Your task to perform on an android device: add a label to a message in the gmail app Image 0: 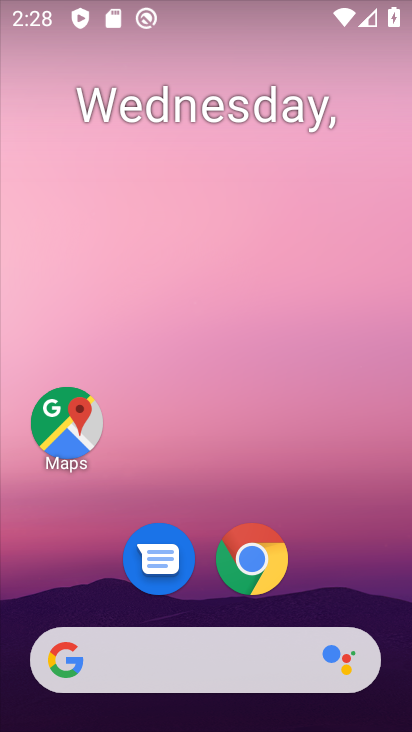
Step 0: drag from (203, 724) to (205, 154)
Your task to perform on an android device: add a label to a message in the gmail app Image 1: 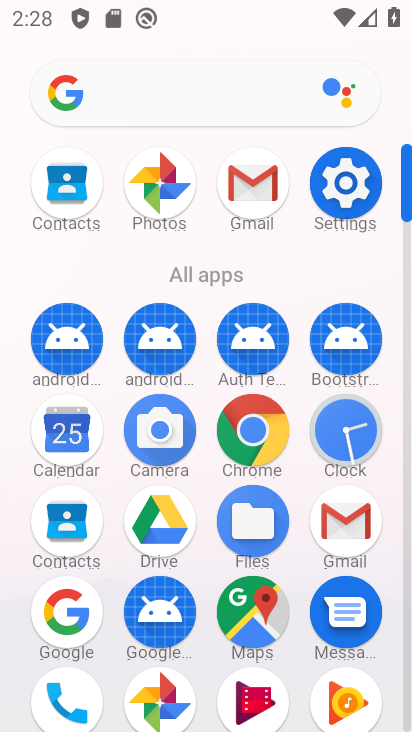
Step 1: click (355, 442)
Your task to perform on an android device: add a label to a message in the gmail app Image 2: 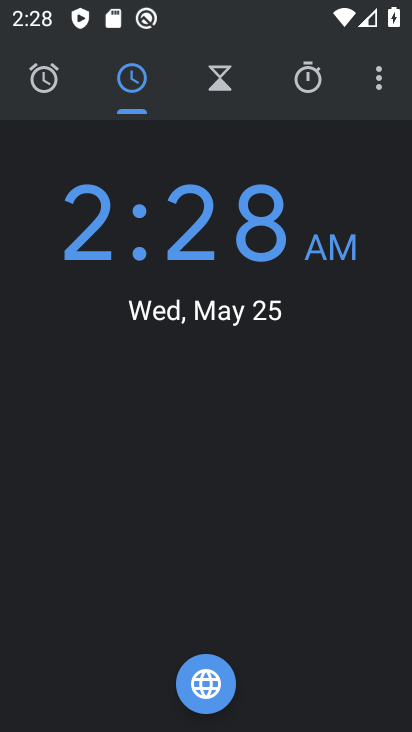
Step 2: press home button
Your task to perform on an android device: add a label to a message in the gmail app Image 3: 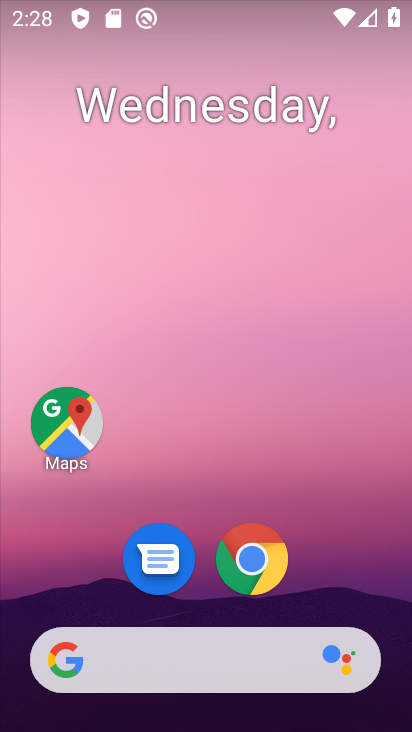
Step 3: drag from (212, 720) to (208, 147)
Your task to perform on an android device: add a label to a message in the gmail app Image 4: 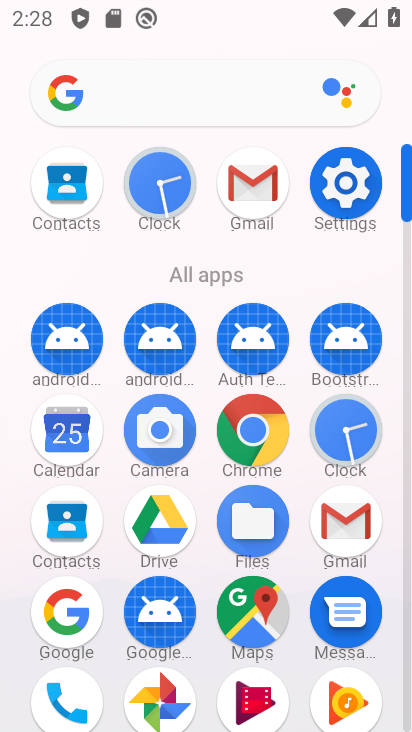
Step 4: click (352, 513)
Your task to perform on an android device: add a label to a message in the gmail app Image 5: 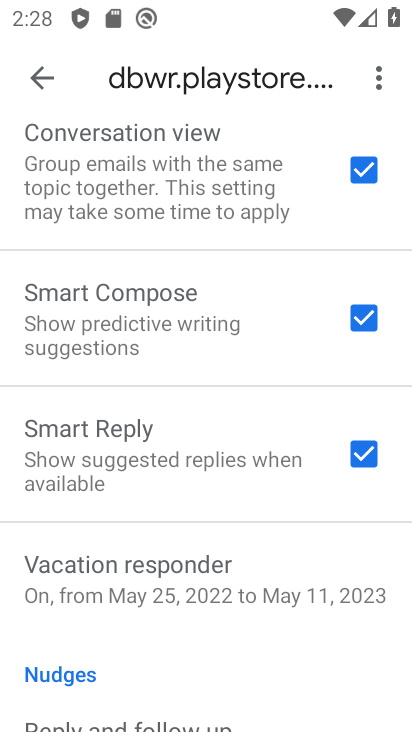
Step 5: click (44, 84)
Your task to perform on an android device: add a label to a message in the gmail app Image 6: 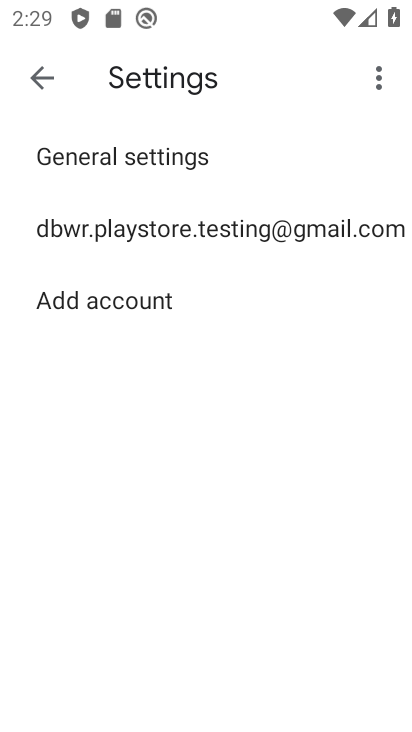
Step 6: click (50, 77)
Your task to perform on an android device: add a label to a message in the gmail app Image 7: 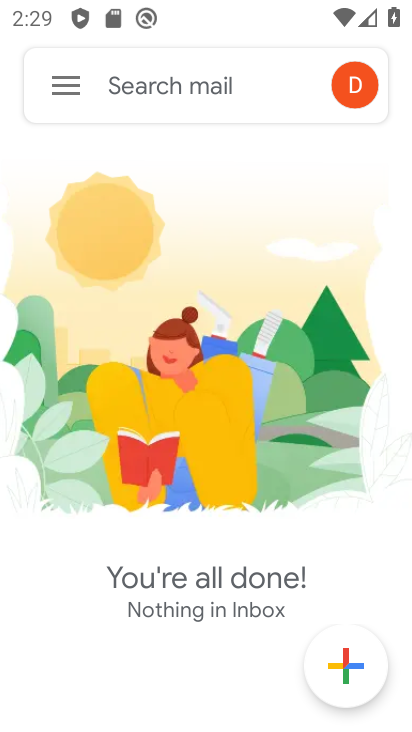
Step 7: task complete